Your task to perform on an android device: View the shopping cart on bestbuy. Add "razer thresher" to the cart on bestbuy, then select checkout. Image 0: 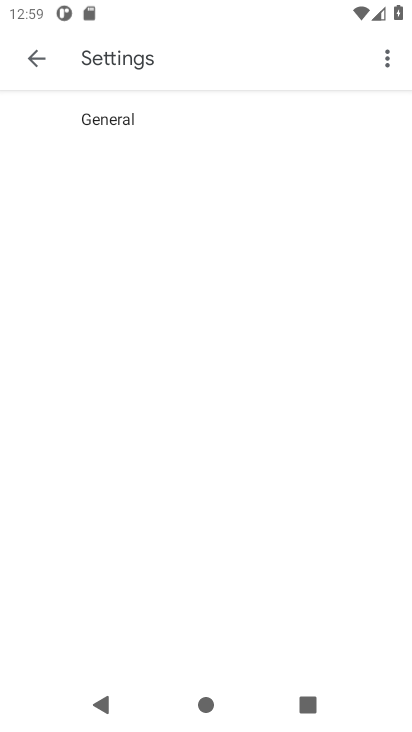
Step 0: press home button
Your task to perform on an android device: View the shopping cart on bestbuy. Add "razer thresher" to the cart on bestbuy, then select checkout. Image 1: 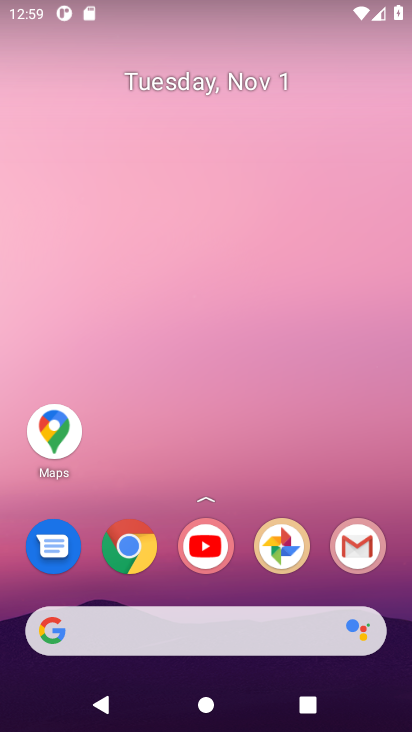
Step 1: click (210, 622)
Your task to perform on an android device: View the shopping cart on bestbuy. Add "razer thresher" to the cart on bestbuy, then select checkout. Image 2: 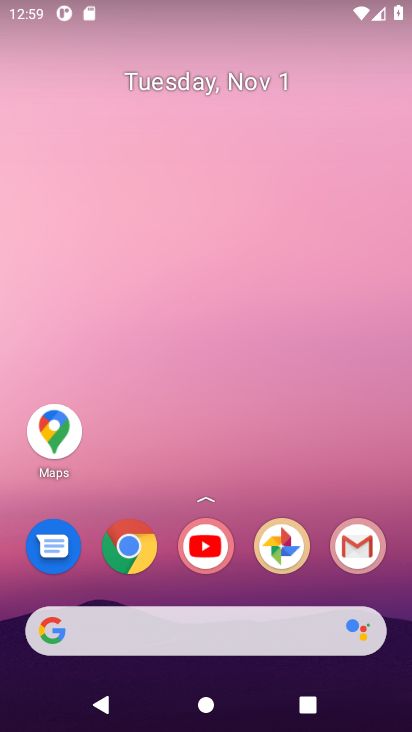
Step 2: click (80, 616)
Your task to perform on an android device: View the shopping cart on bestbuy. Add "razer thresher" to the cart on bestbuy, then select checkout. Image 3: 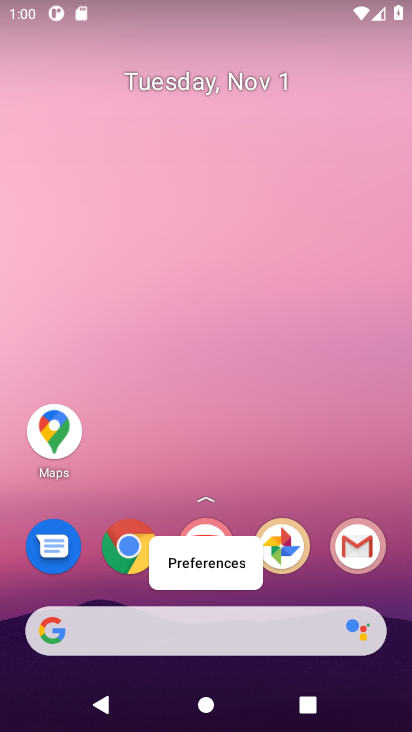
Step 3: click (134, 640)
Your task to perform on an android device: View the shopping cart on bestbuy. Add "razer thresher" to the cart on bestbuy, then select checkout. Image 4: 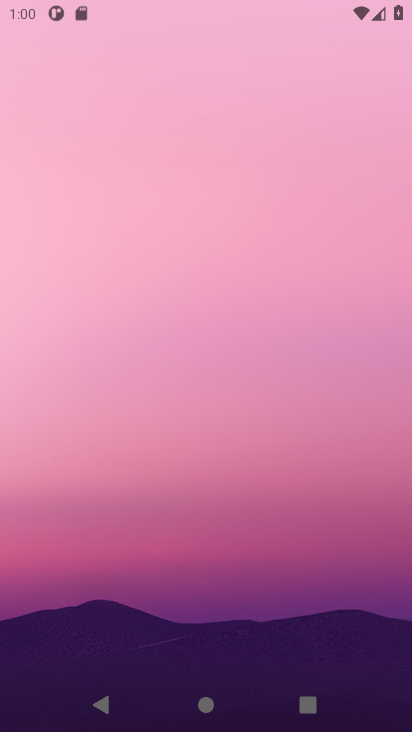
Step 4: click (175, 626)
Your task to perform on an android device: View the shopping cart on bestbuy. Add "razer thresher" to the cart on bestbuy, then select checkout. Image 5: 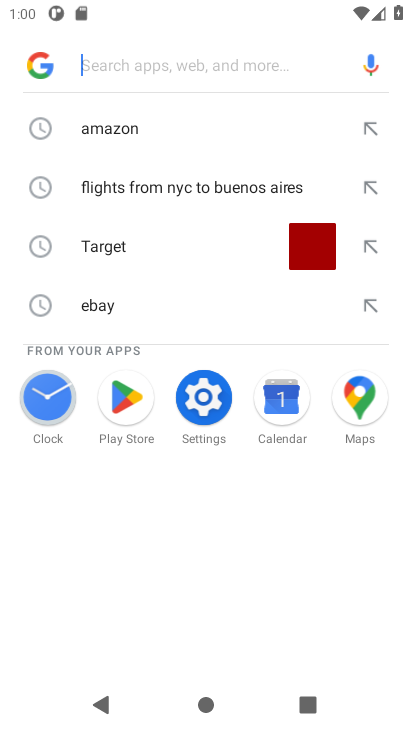
Step 5: click (175, 626)
Your task to perform on an android device: View the shopping cart on bestbuy. Add "razer thresher" to the cart on bestbuy, then select checkout. Image 6: 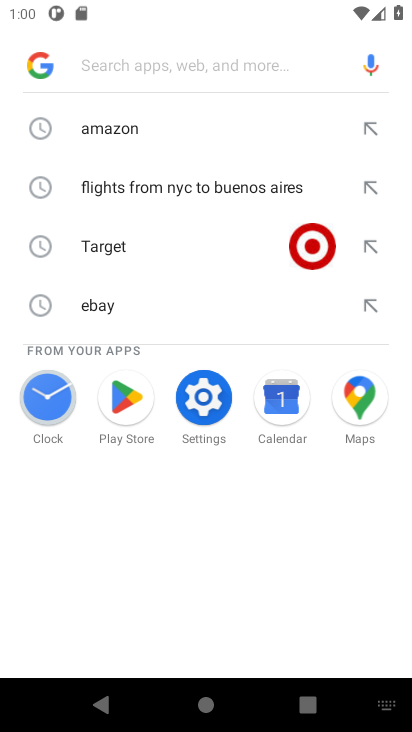
Step 6: type "bestbuy"
Your task to perform on an android device: View the shopping cart on bestbuy. Add "razer thresher" to the cart on bestbuy, then select checkout. Image 7: 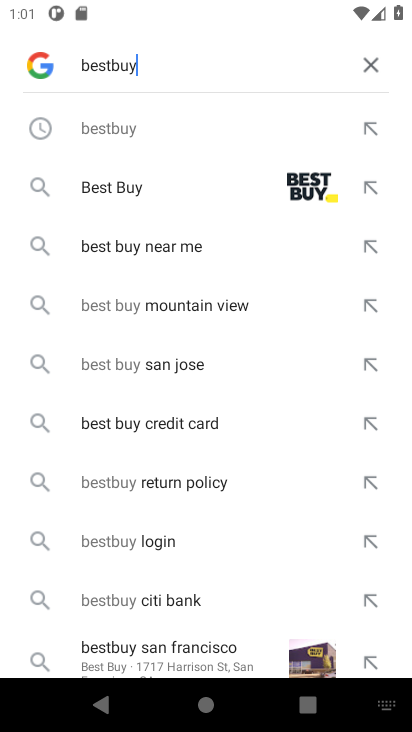
Step 7: press enter
Your task to perform on an android device: View the shopping cart on bestbuy. Add "razer thresher" to the cart on bestbuy, then select checkout. Image 8: 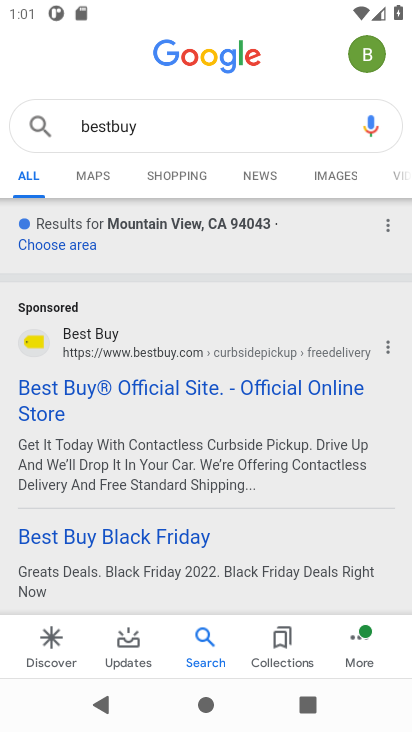
Step 8: type "bestbuy"
Your task to perform on an android device: View the shopping cart on bestbuy. Add "razer thresher" to the cart on bestbuy, then select checkout. Image 9: 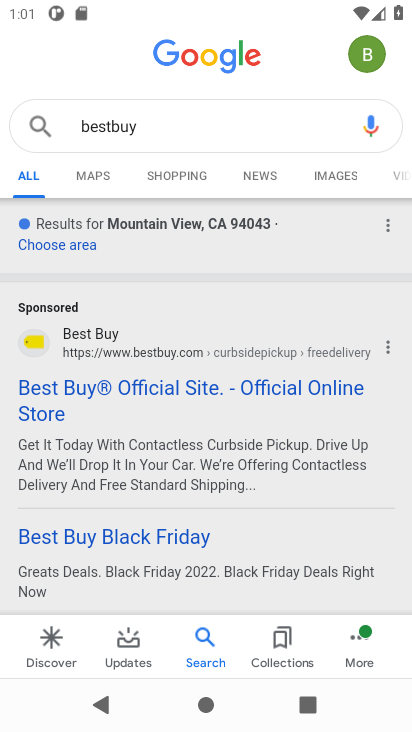
Step 9: click (139, 381)
Your task to perform on an android device: View the shopping cart on bestbuy. Add "razer thresher" to the cart on bestbuy, then select checkout. Image 10: 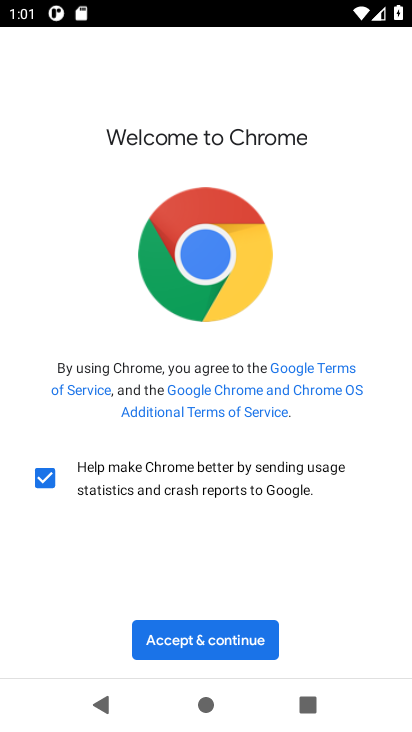
Step 10: click (244, 628)
Your task to perform on an android device: View the shopping cart on bestbuy. Add "razer thresher" to the cart on bestbuy, then select checkout. Image 11: 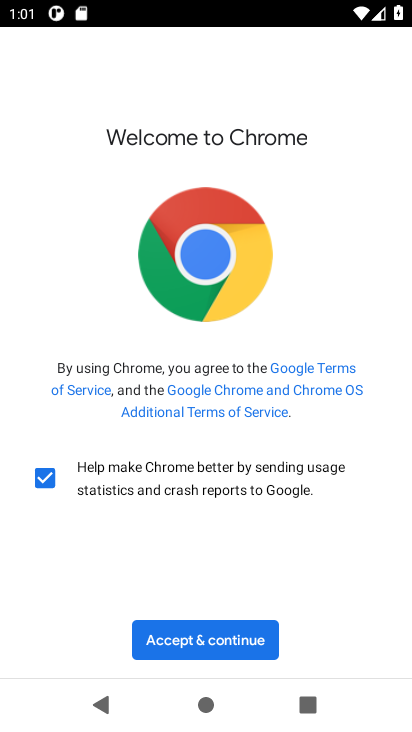
Step 11: click (244, 640)
Your task to perform on an android device: View the shopping cart on bestbuy. Add "razer thresher" to the cart on bestbuy, then select checkout. Image 12: 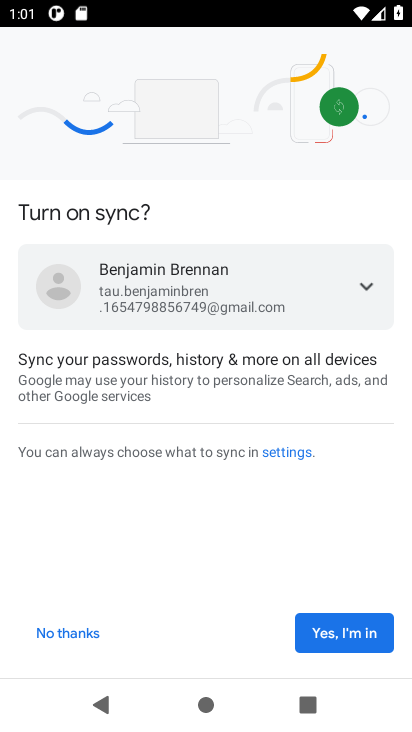
Step 12: click (320, 633)
Your task to perform on an android device: View the shopping cart on bestbuy. Add "razer thresher" to the cart on bestbuy, then select checkout. Image 13: 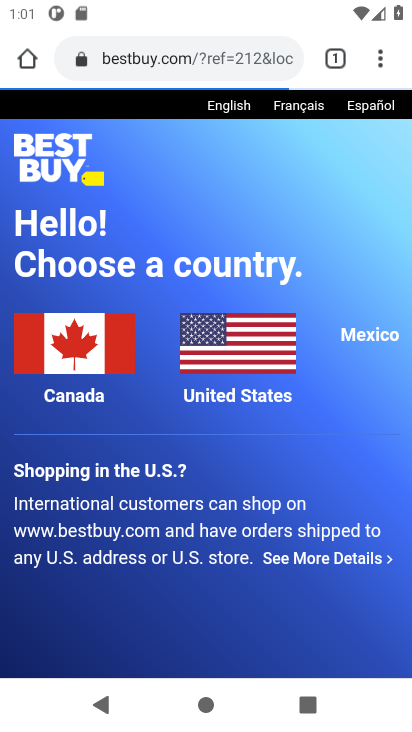
Step 13: click (259, 333)
Your task to perform on an android device: View the shopping cart on bestbuy. Add "razer thresher" to the cart on bestbuy, then select checkout. Image 14: 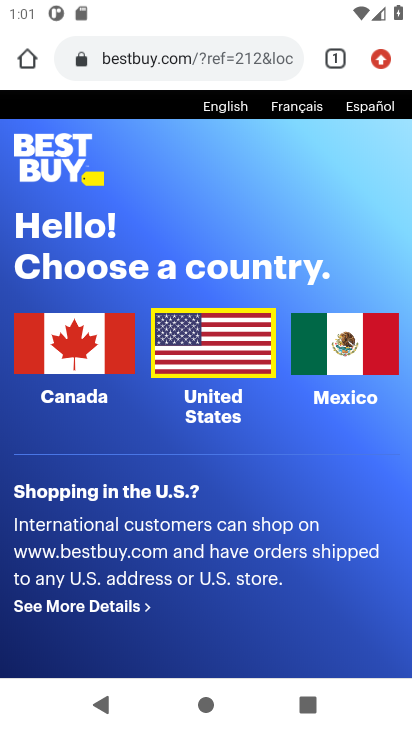
Step 14: click (259, 333)
Your task to perform on an android device: View the shopping cart on bestbuy. Add "razer thresher" to the cart on bestbuy, then select checkout. Image 15: 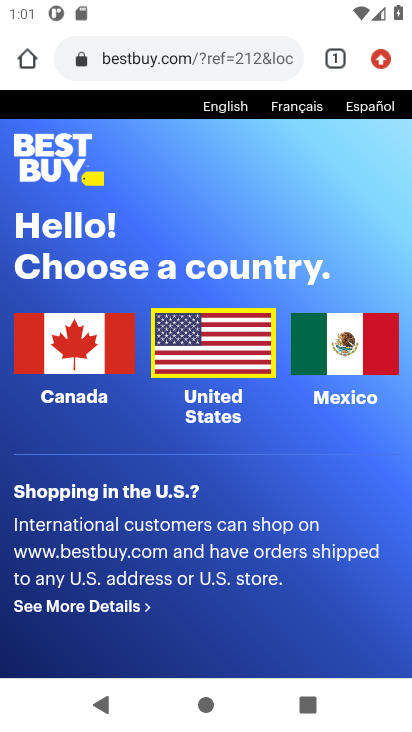
Step 15: click (250, 339)
Your task to perform on an android device: View the shopping cart on bestbuy. Add "razer thresher" to the cart on bestbuy, then select checkout. Image 16: 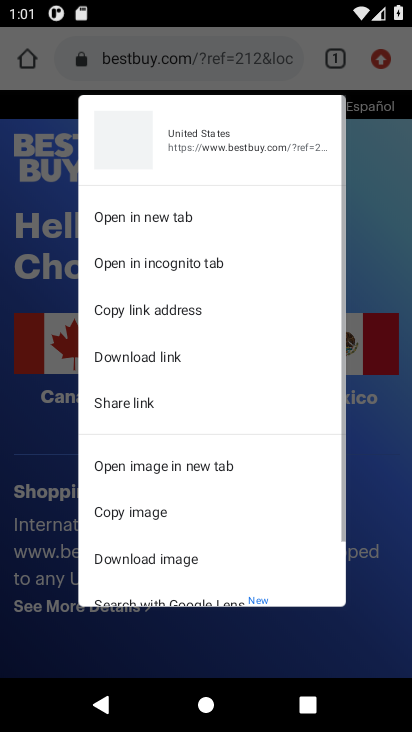
Step 16: press home button
Your task to perform on an android device: View the shopping cart on bestbuy. Add "razer thresher" to the cart on bestbuy, then select checkout. Image 17: 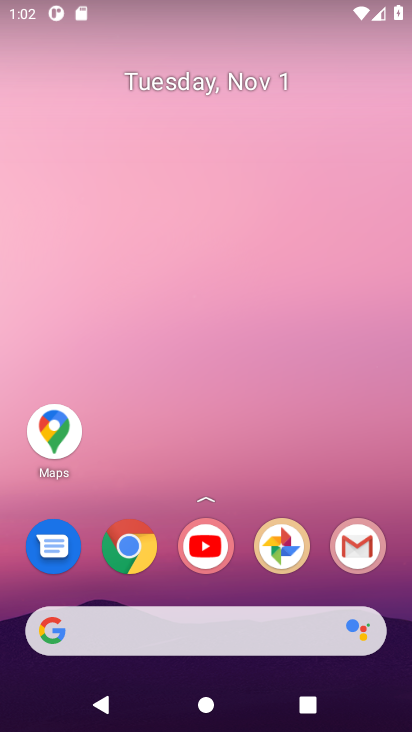
Step 17: click (244, 618)
Your task to perform on an android device: View the shopping cart on bestbuy. Add "razer thresher" to the cart on bestbuy, then select checkout. Image 18: 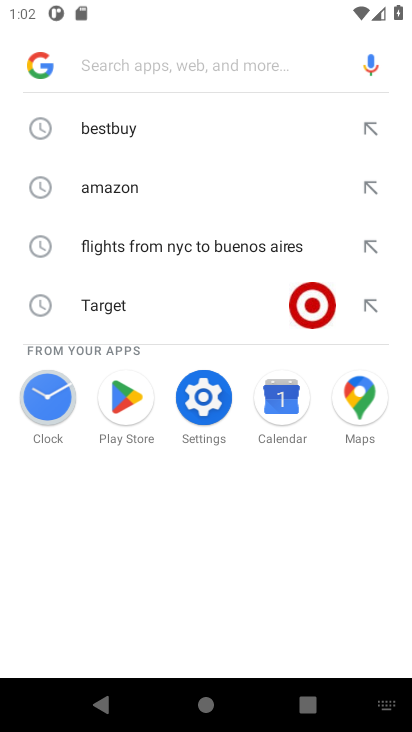
Step 18: click (242, 620)
Your task to perform on an android device: View the shopping cart on bestbuy. Add "razer thresher" to the cart on bestbuy, then select checkout. Image 19: 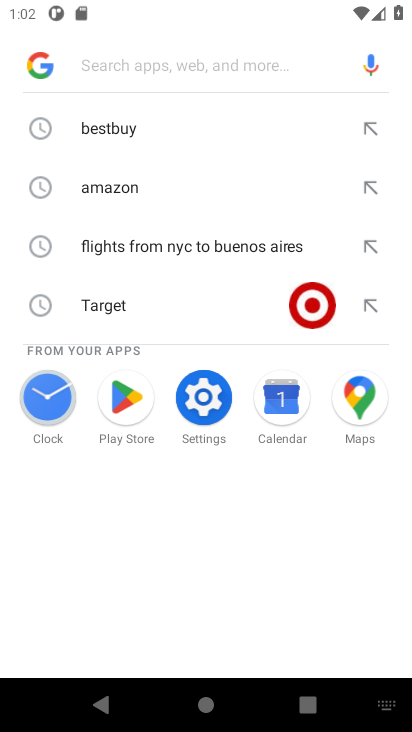
Step 19: task complete